Your task to perform on an android device: remove spam from my inbox in the gmail app Image 0: 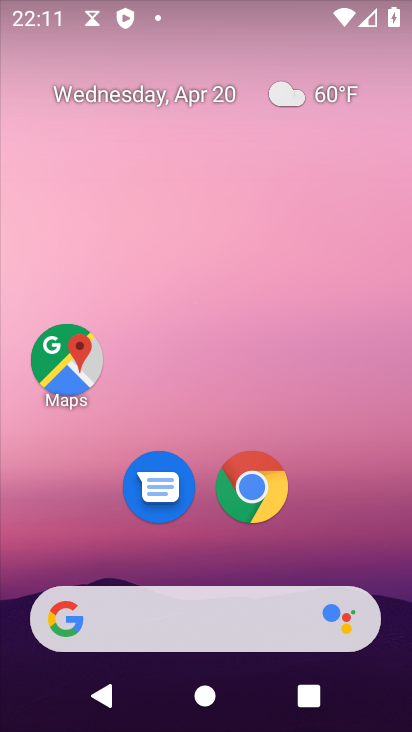
Step 0: click (114, 725)
Your task to perform on an android device: remove spam from my inbox in the gmail app Image 1: 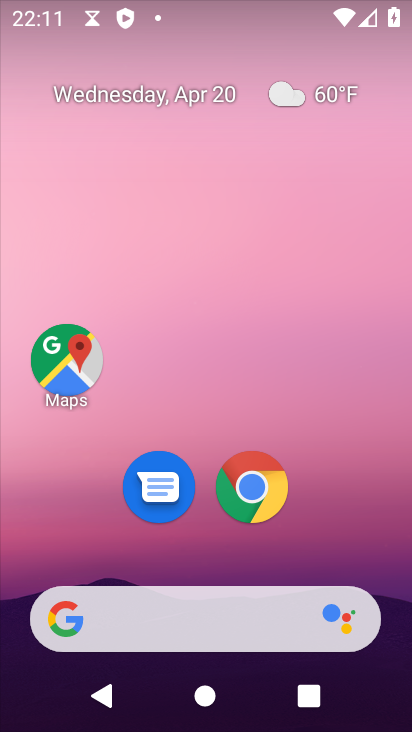
Step 1: drag from (81, 533) to (297, 188)
Your task to perform on an android device: remove spam from my inbox in the gmail app Image 2: 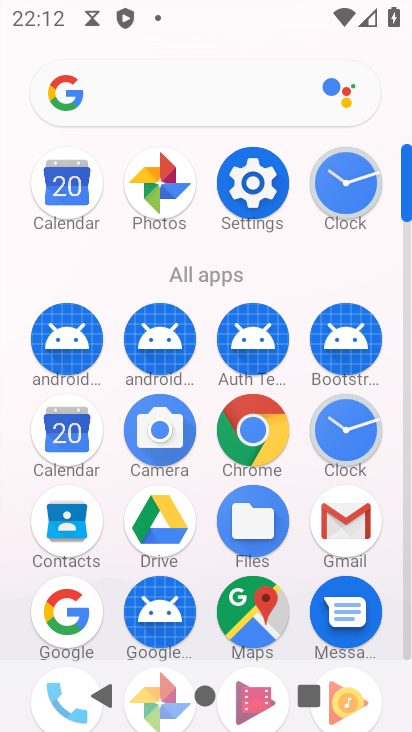
Step 2: click (335, 523)
Your task to perform on an android device: remove spam from my inbox in the gmail app Image 3: 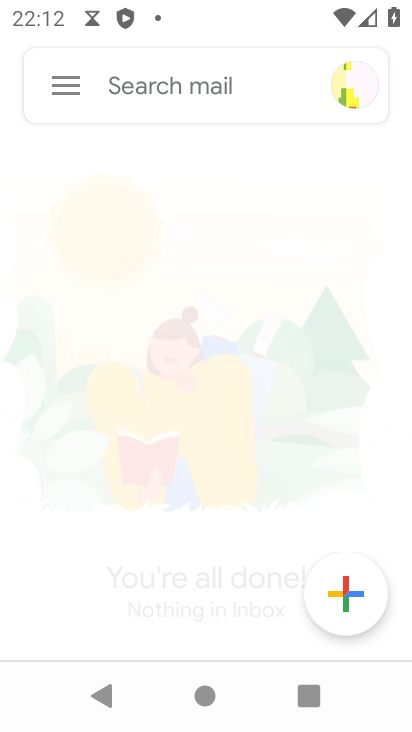
Step 3: click (51, 80)
Your task to perform on an android device: remove spam from my inbox in the gmail app Image 4: 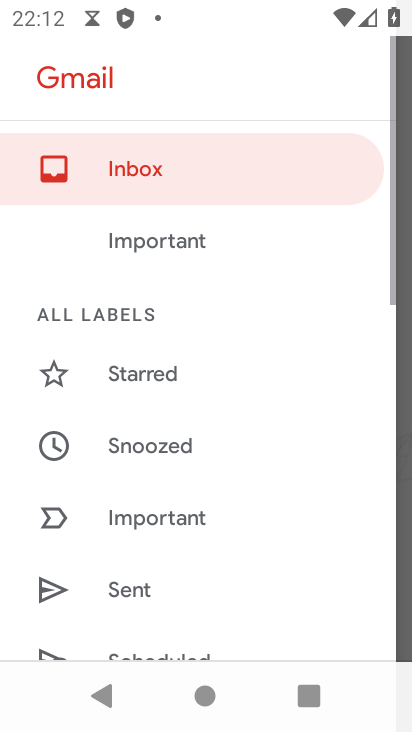
Step 4: drag from (91, 608) to (219, 279)
Your task to perform on an android device: remove spam from my inbox in the gmail app Image 5: 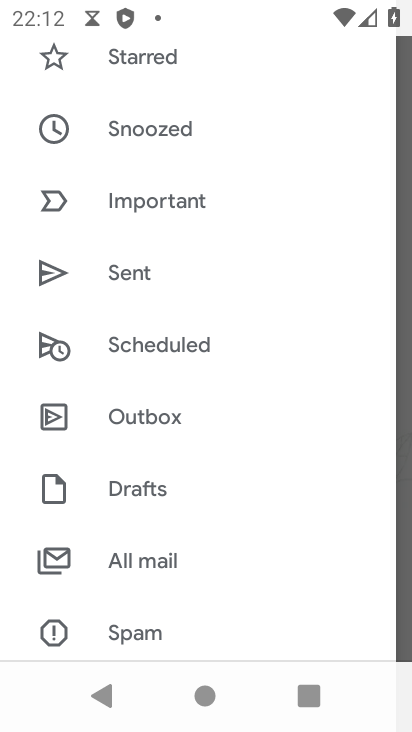
Step 5: click (115, 628)
Your task to perform on an android device: remove spam from my inbox in the gmail app Image 6: 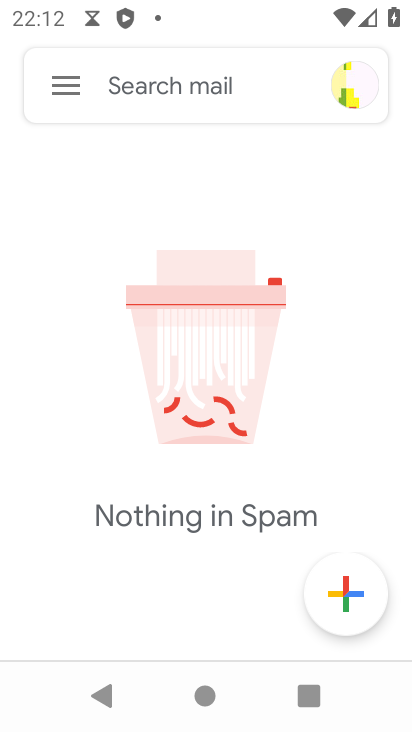
Step 6: task complete